Your task to perform on an android device: Go to Google maps Image 0: 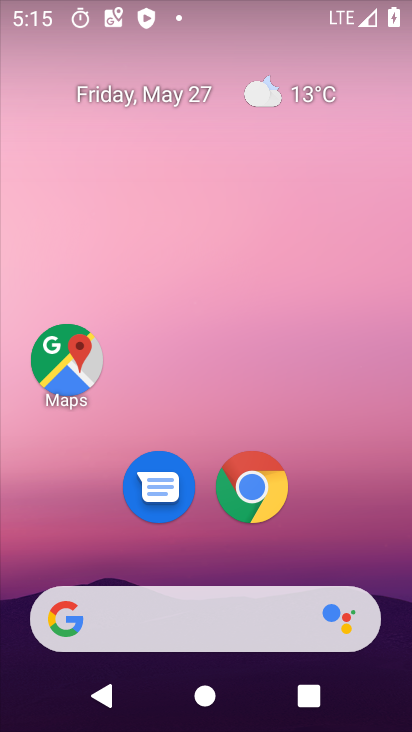
Step 0: click (66, 365)
Your task to perform on an android device: Go to Google maps Image 1: 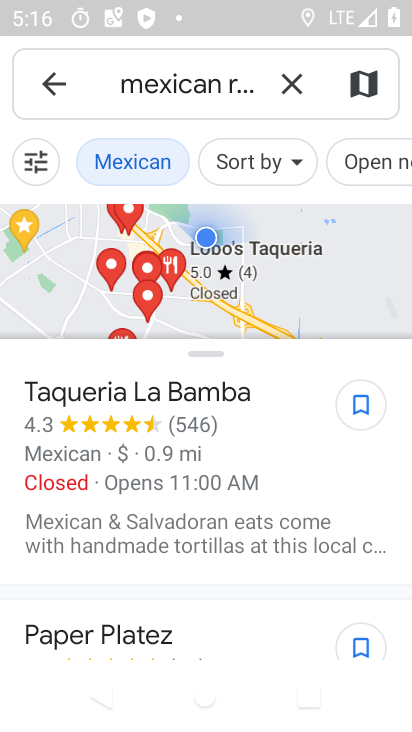
Step 1: task complete